Your task to perform on an android device: toggle show notifications on the lock screen Image 0: 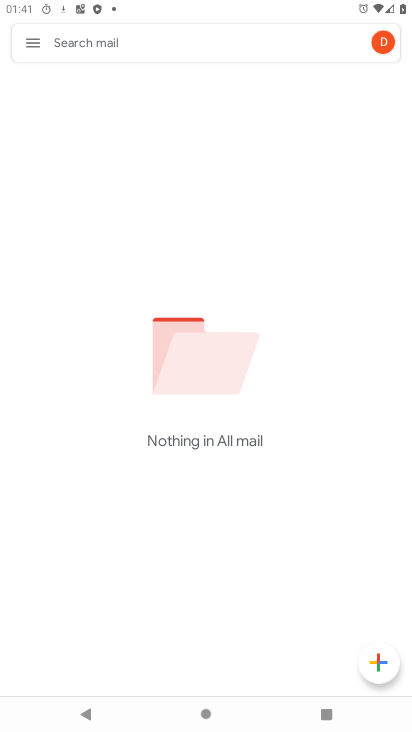
Step 0: press home button
Your task to perform on an android device: toggle show notifications on the lock screen Image 1: 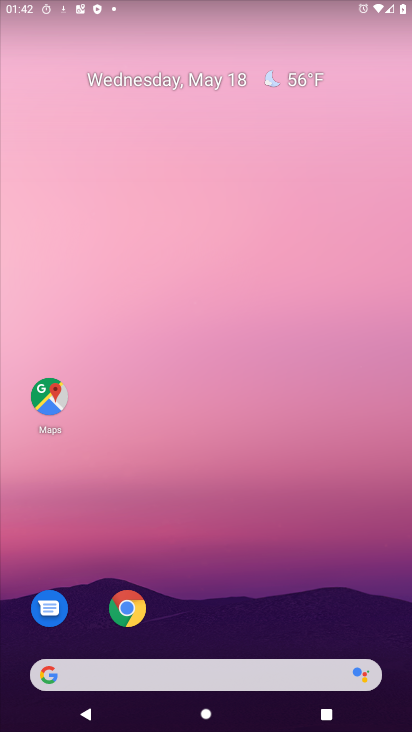
Step 1: drag from (243, 686) to (206, 50)
Your task to perform on an android device: toggle show notifications on the lock screen Image 2: 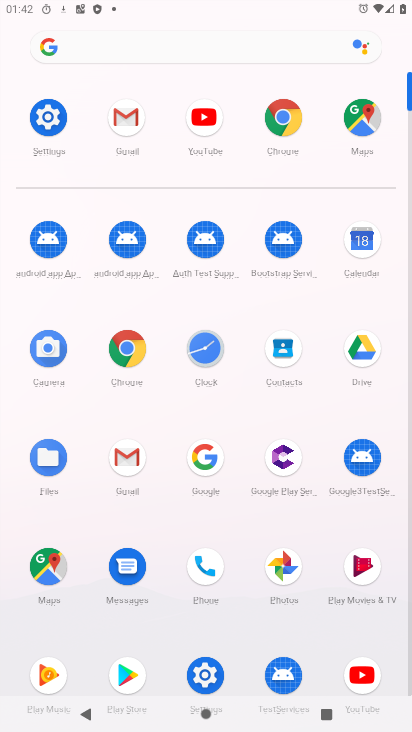
Step 2: click (58, 118)
Your task to perform on an android device: toggle show notifications on the lock screen Image 3: 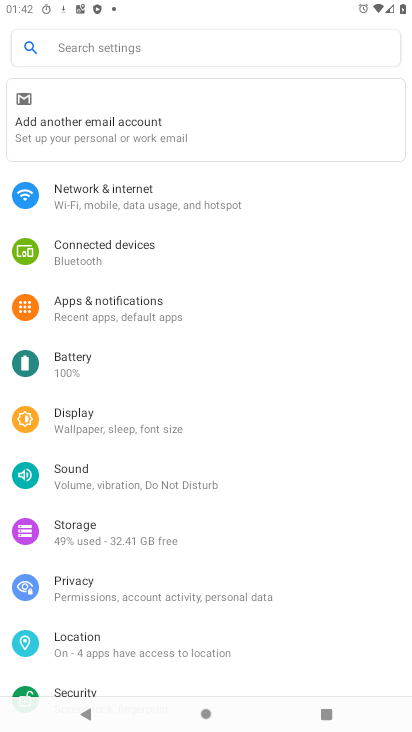
Step 3: click (80, 50)
Your task to perform on an android device: toggle show notifications on the lock screen Image 4: 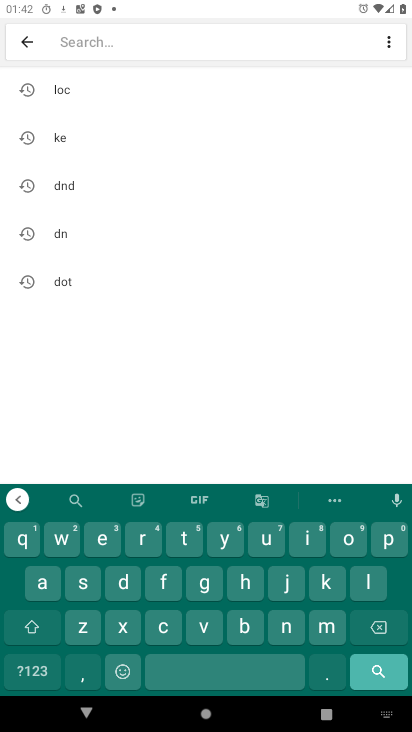
Step 4: click (286, 636)
Your task to perform on an android device: toggle show notifications on the lock screen Image 5: 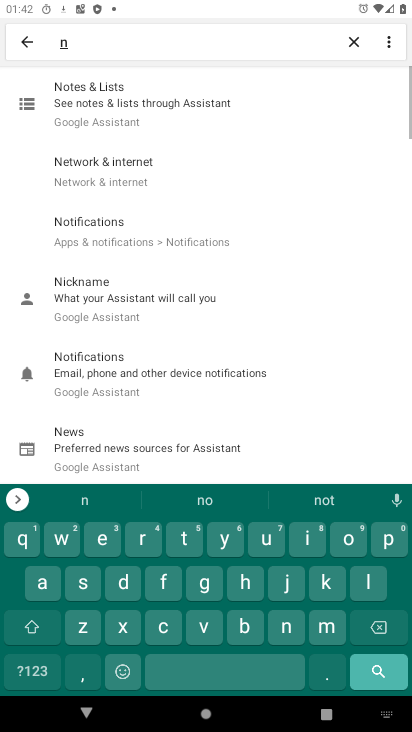
Step 5: click (355, 538)
Your task to perform on an android device: toggle show notifications on the lock screen Image 6: 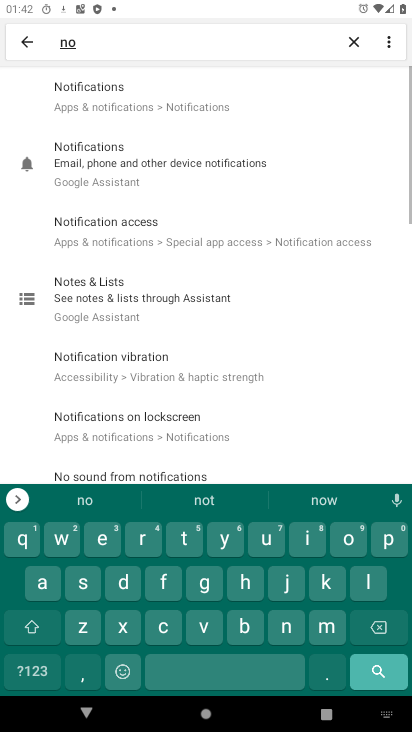
Step 6: click (130, 107)
Your task to perform on an android device: toggle show notifications on the lock screen Image 7: 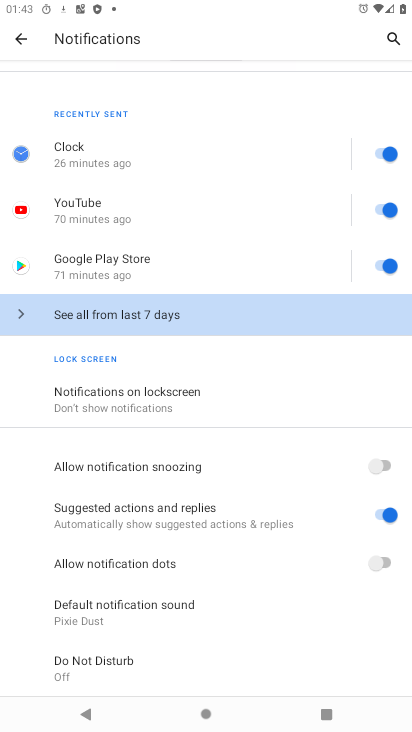
Step 7: click (107, 388)
Your task to perform on an android device: toggle show notifications on the lock screen Image 8: 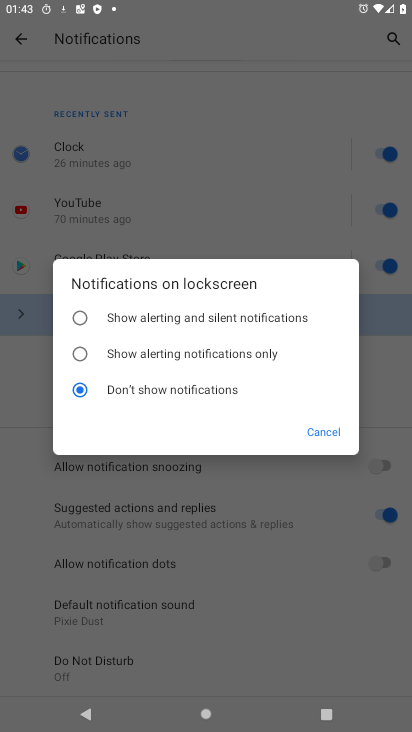
Step 8: task complete